Your task to perform on an android device: Go to Android settings Image 0: 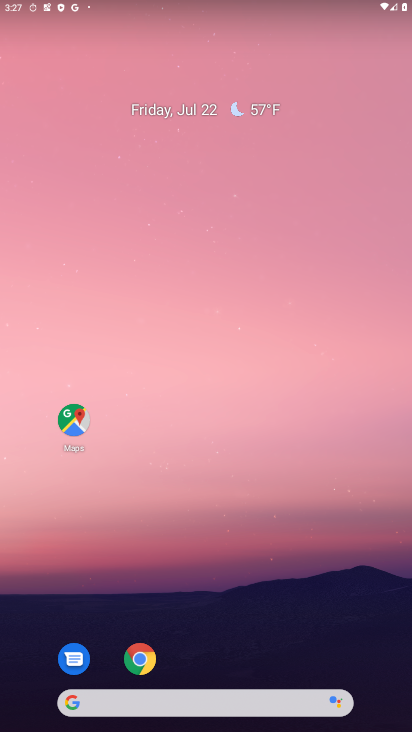
Step 0: drag from (241, 612) to (194, 23)
Your task to perform on an android device: Go to Android settings Image 1: 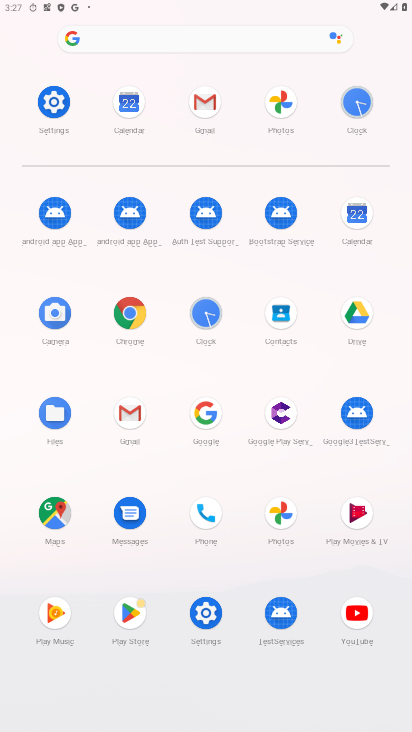
Step 1: click (46, 90)
Your task to perform on an android device: Go to Android settings Image 2: 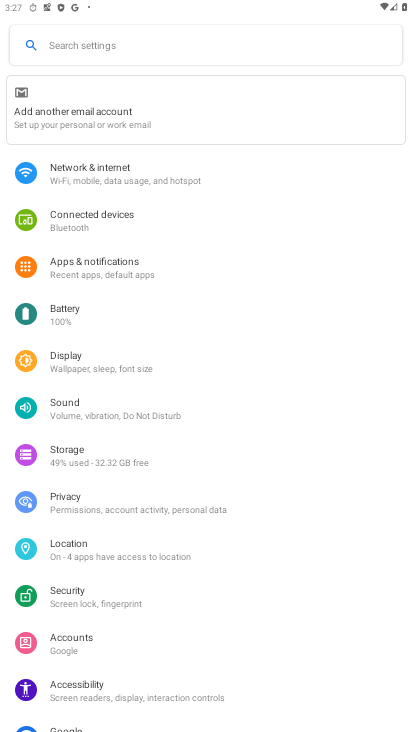
Step 2: drag from (140, 514) to (153, 5)
Your task to perform on an android device: Go to Android settings Image 3: 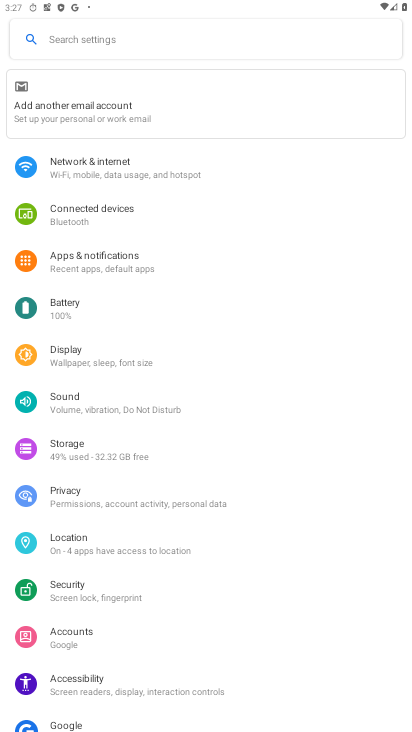
Step 3: drag from (127, 669) to (95, 24)
Your task to perform on an android device: Go to Android settings Image 4: 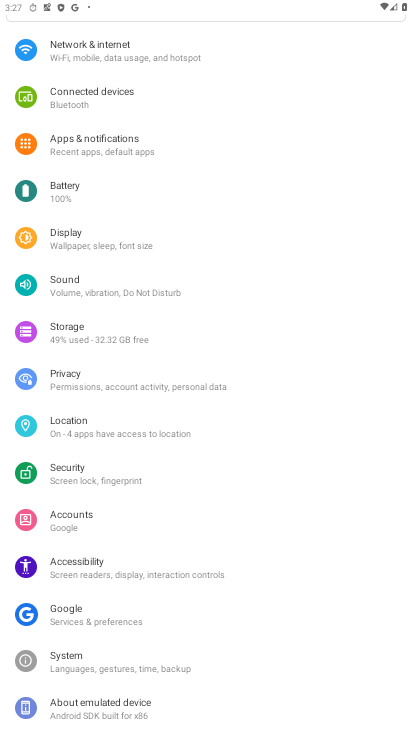
Step 4: click (110, 663)
Your task to perform on an android device: Go to Android settings Image 5: 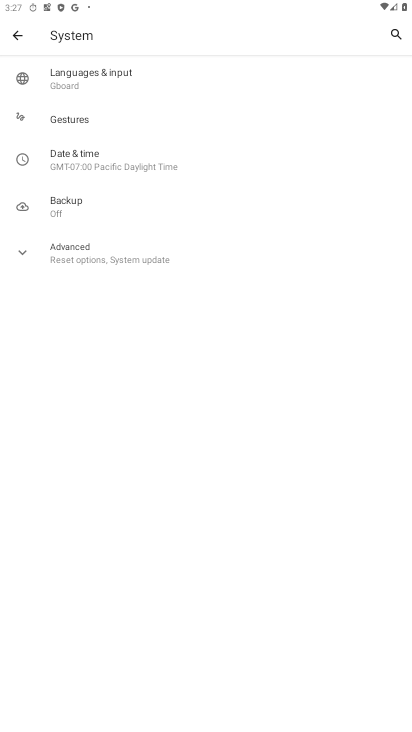
Step 5: task complete